Your task to perform on an android device: open device folders in google photos Image 0: 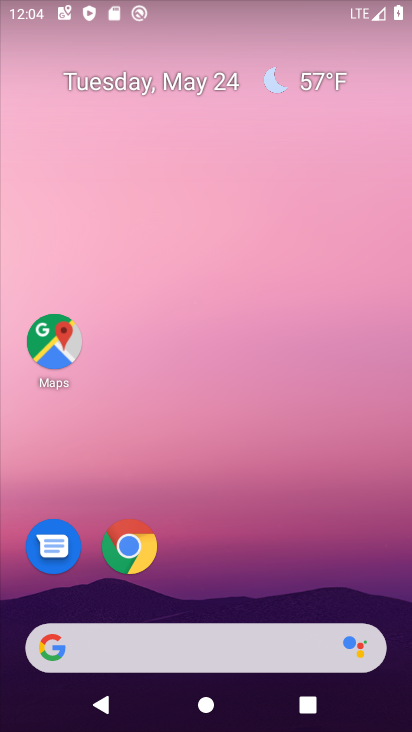
Step 0: drag from (263, 394) to (331, 1)
Your task to perform on an android device: open device folders in google photos Image 1: 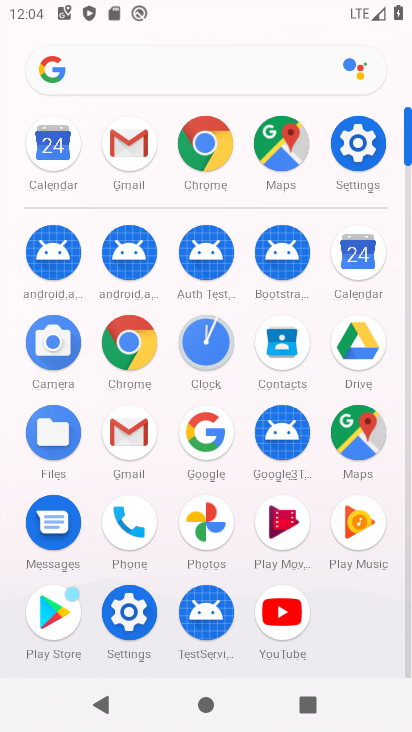
Step 1: click (215, 518)
Your task to perform on an android device: open device folders in google photos Image 2: 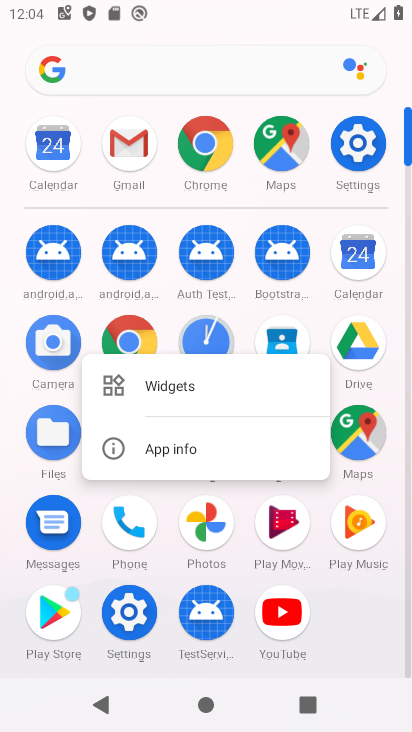
Step 2: click (142, 444)
Your task to perform on an android device: open device folders in google photos Image 3: 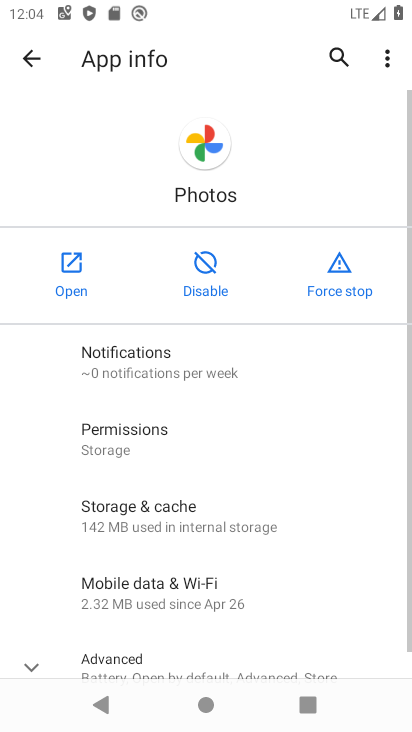
Step 3: click (69, 279)
Your task to perform on an android device: open device folders in google photos Image 4: 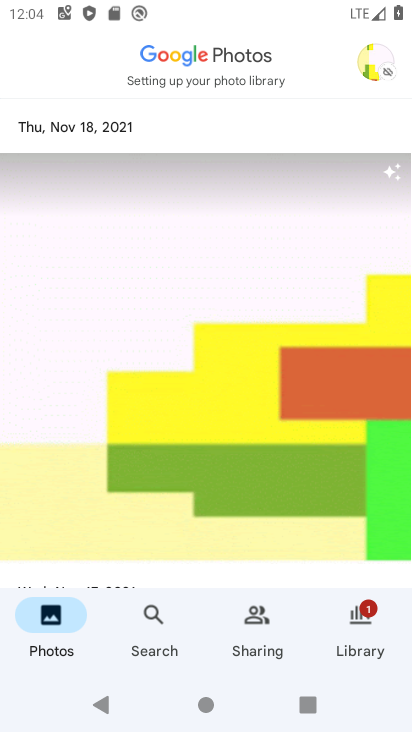
Step 4: drag from (253, 509) to (280, 187)
Your task to perform on an android device: open device folders in google photos Image 5: 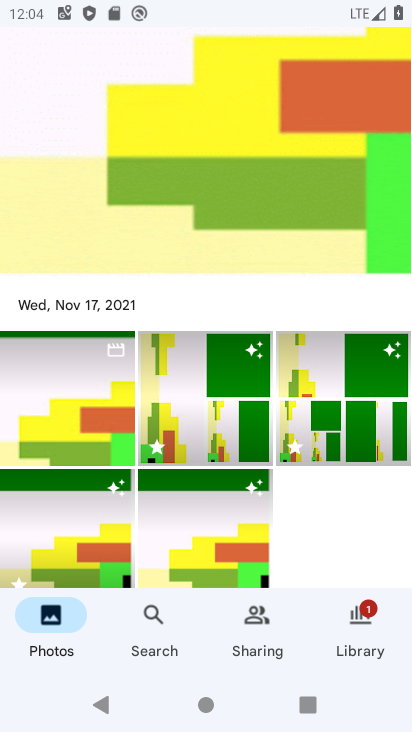
Step 5: click (362, 624)
Your task to perform on an android device: open device folders in google photos Image 6: 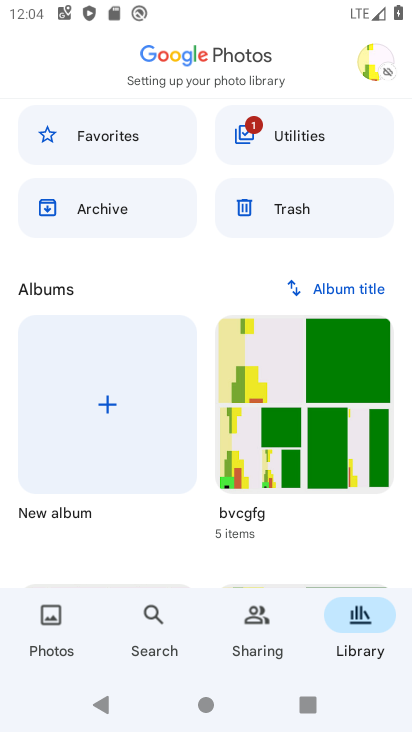
Step 6: task complete